Your task to perform on an android device: Go to display settings Image 0: 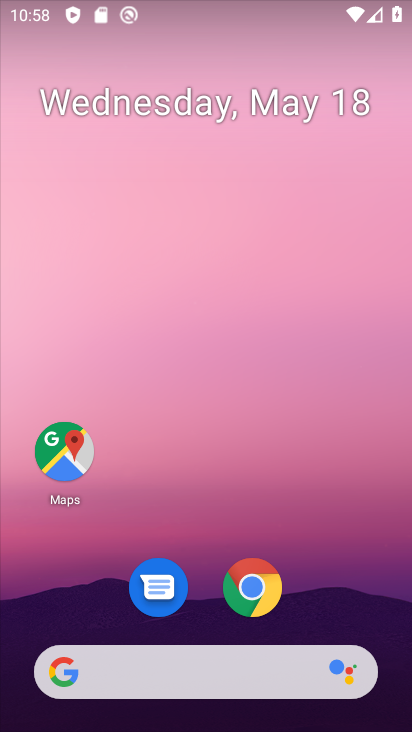
Step 0: drag from (400, 696) to (331, 213)
Your task to perform on an android device: Go to display settings Image 1: 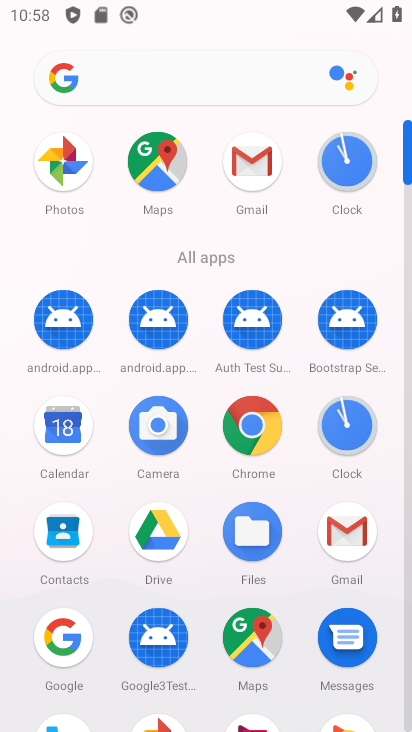
Step 1: drag from (406, 116) to (382, 33)
Your task to perform on an android device: Go to display settings Image 2: 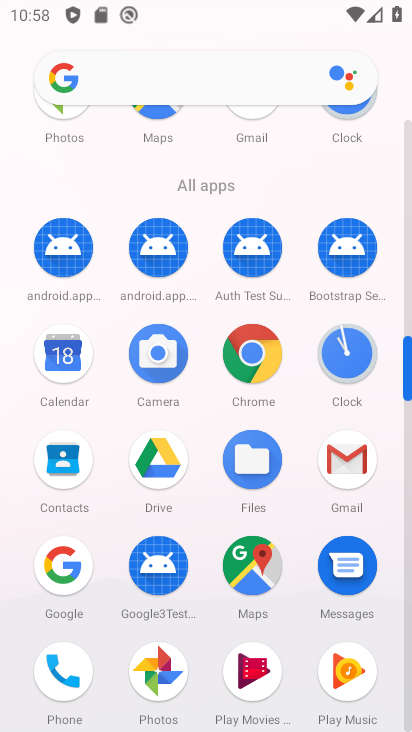
Step 2: drag from (411, 344) to (402, 214)
Your task to perform on an android device: Go to display settings Image 3: 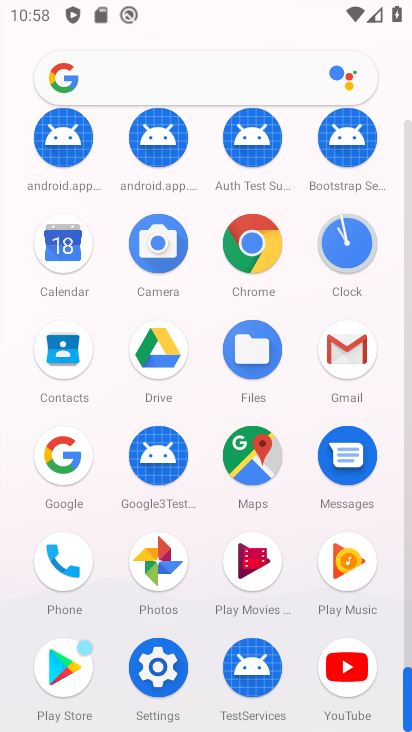
Step 3: click (159, 657)
Your task to perform on an android device: Go to display settings Image 4: 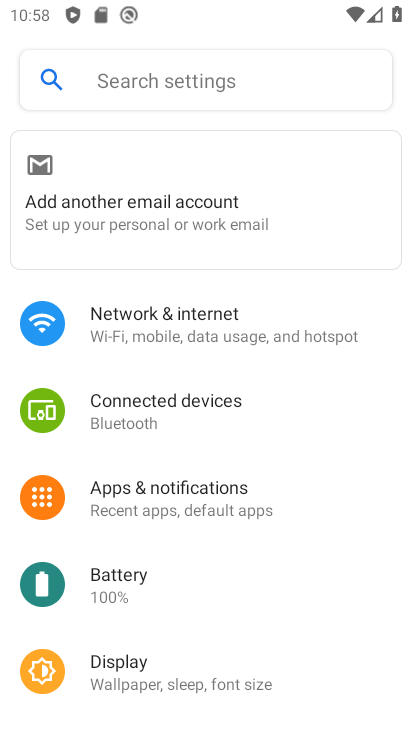
Step 4: click (137, 660)
Your task to perform on an android device: Go to display settings Image 5: 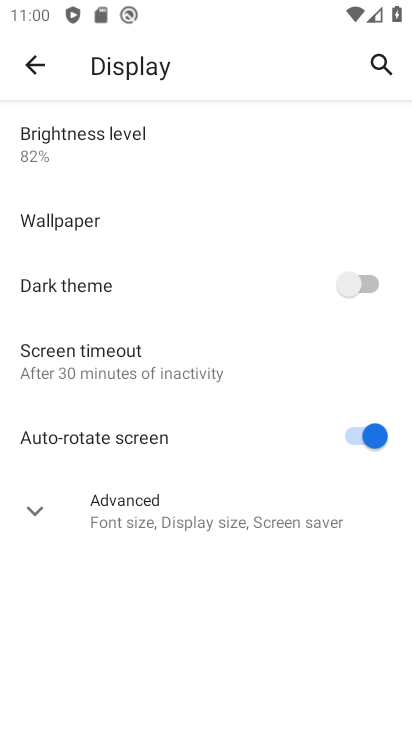
Step 5: task complete